Your task to perform on an android device: change timer sound Image 0: 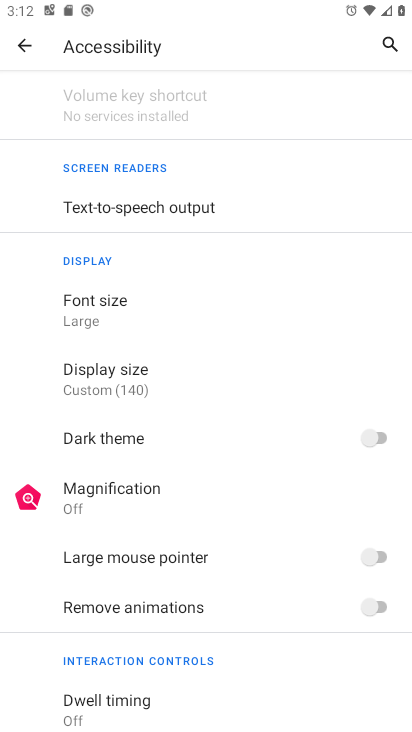
Step 0: press home button
Your task to perform on an android device: change timer sound Image 1: 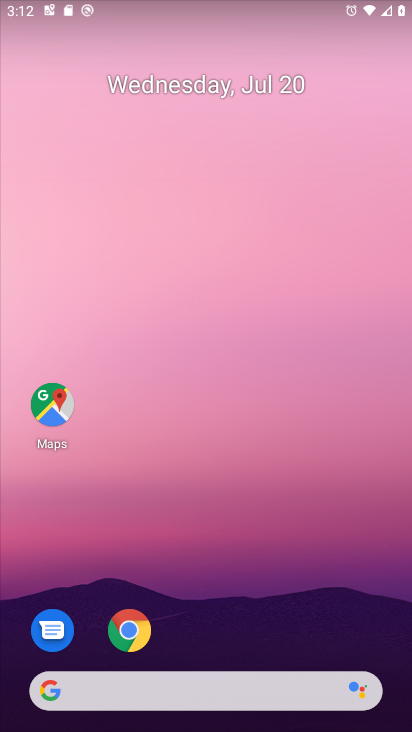
Step 1: drag from (218, 641) to (224, 207)
Your task to perform on an android device: change timer sound Image 2: 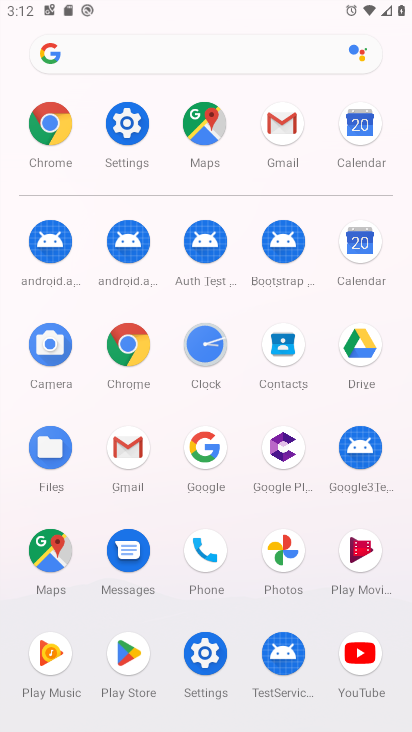
Step 2: click (201, 350)
Your task to perform on an android device: change timer sound Image 3: 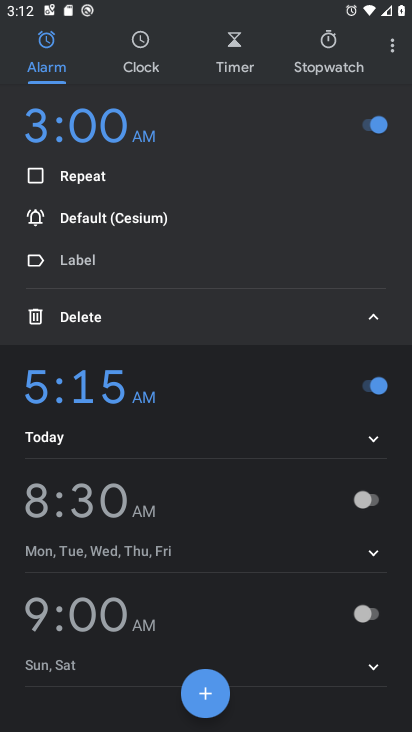
Step 3: click (398, 50)
Your task to perform on an android device: change timer sound Image 4: 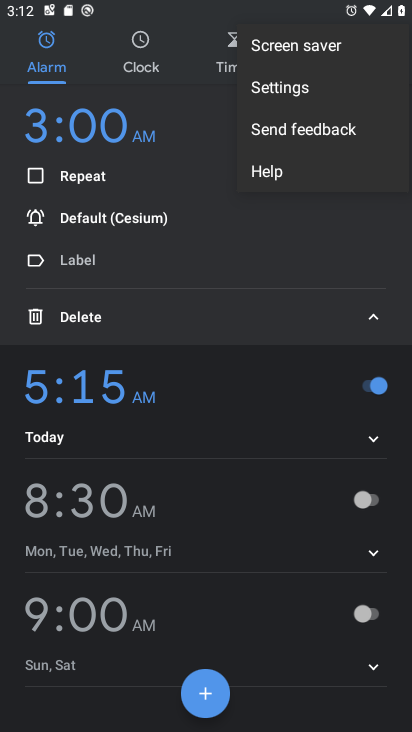
Step 4: click (270, 92)
Your task to perform on an android device: change timer sound Image 5: 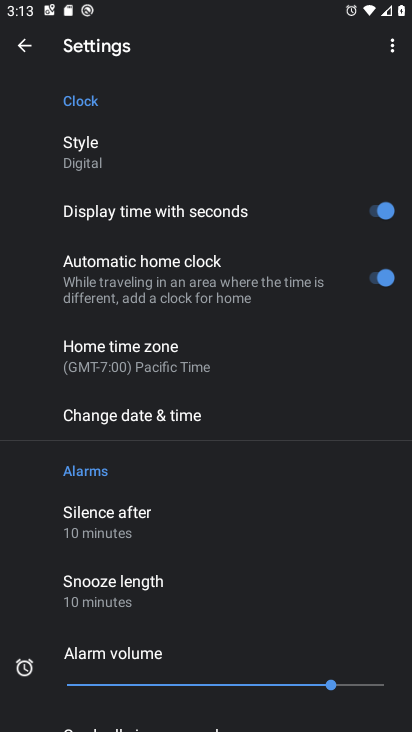
Step 5: drag from (162, 488) to (180, 215)
Your task to perform on an android device: change timer sound Image 6: 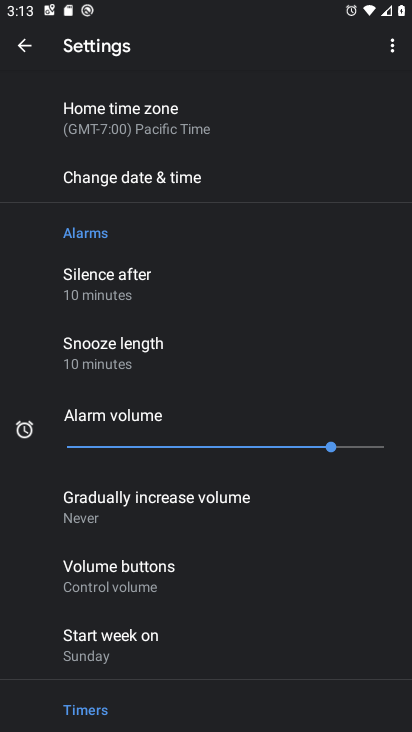
Step 6: drag from (131, 565) to (140, 388)
Your task to perform on an android device: change timer sound Image 7: 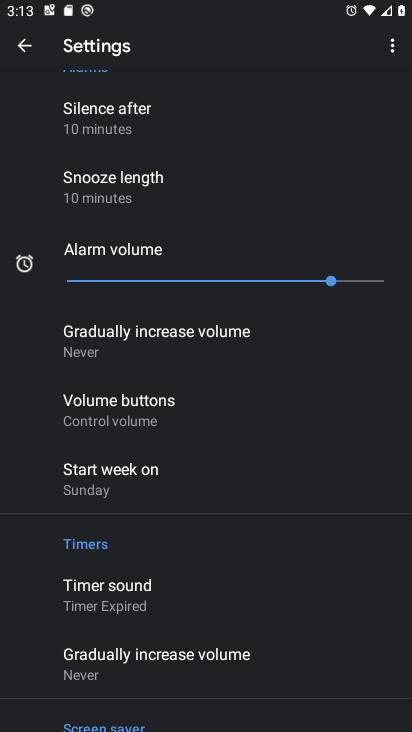
Step 7: click (117, 592)
Your task to perform on an android device: change timer sound Image 8: 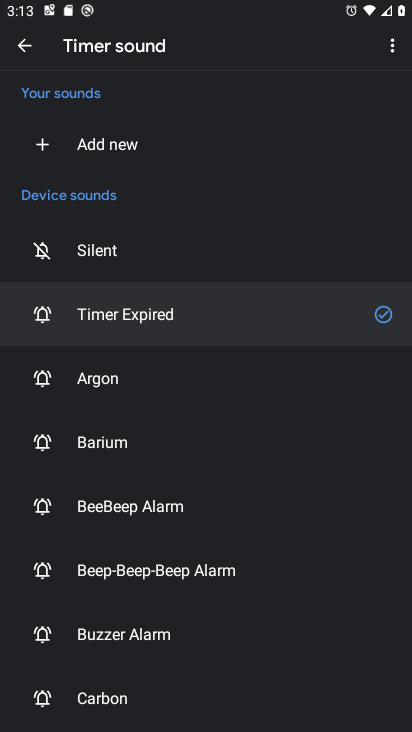
Step 8: click (115, 451)
Your task to perform on an android device: change timer sound Image 9: 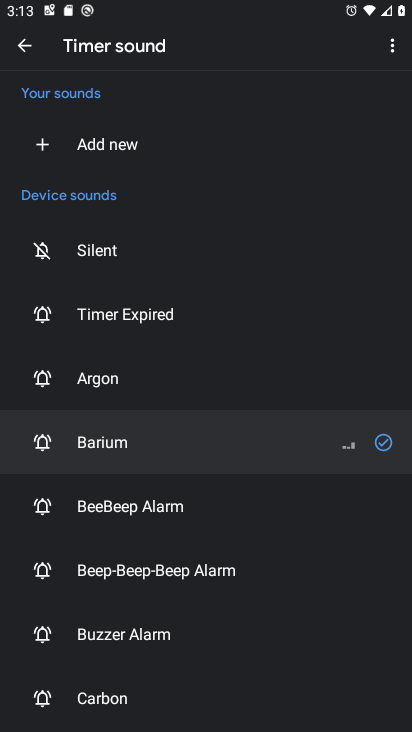
Step 9: task complete